Your task to perform on an android device: Go to calendar. Show me events next week Image 0: 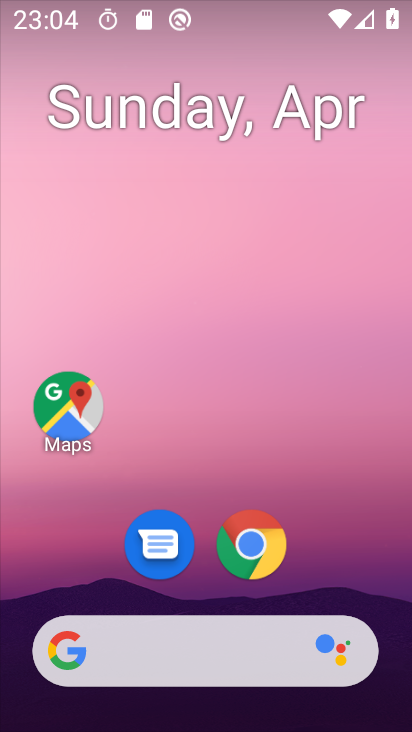
Step 0: drag from (331, 543) to (342, 247)
Your task to perform on an android device: Go to calendar. Show me events next week Image 1: 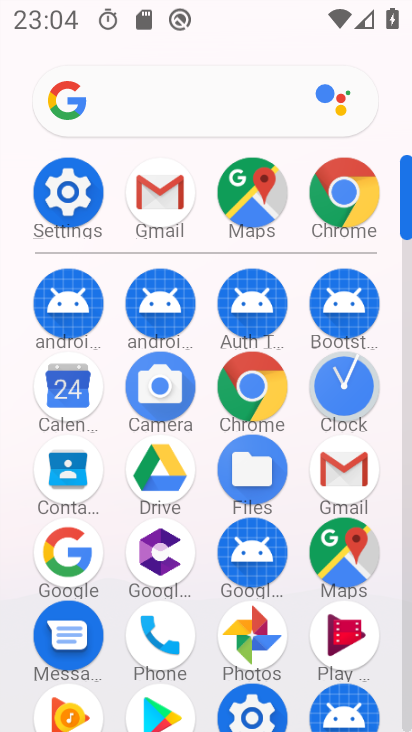
Step 1: click (59, 376)
Your task to perform on an android device: Go to calendar. Show me events next week Image 2: 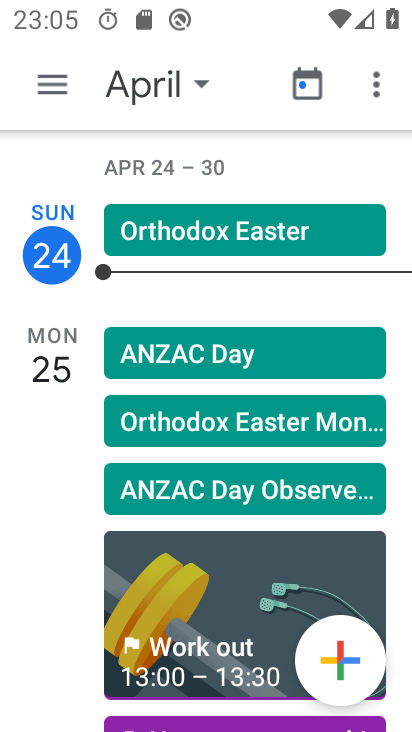
Step 2: click (55, 79)
Your task to perform on an android device: Go to calendar. Show me events next week Image 3: 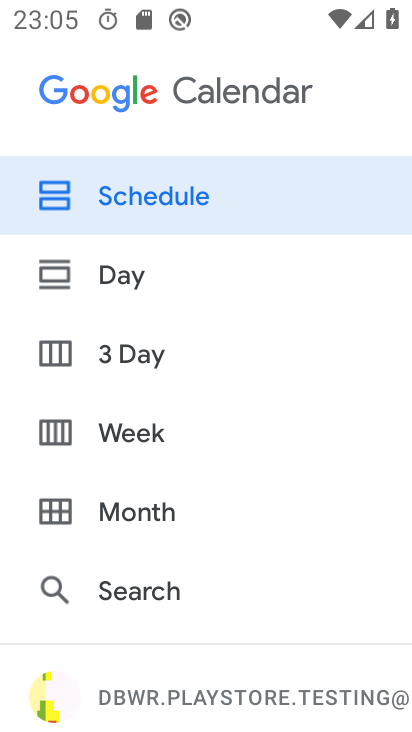
Step 3: click (154, 506)
Your task to perform on an android device: Go to calendar. Show me events next week Image 4: 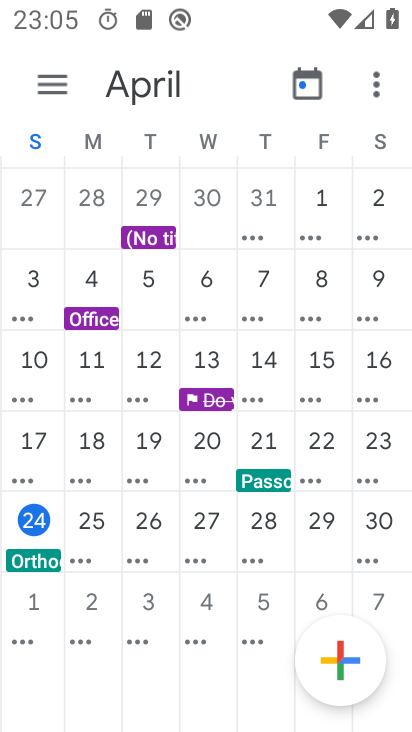
Step 4: task complete